Your task to perform on an android device: change the clock display to show seconds Image 0: 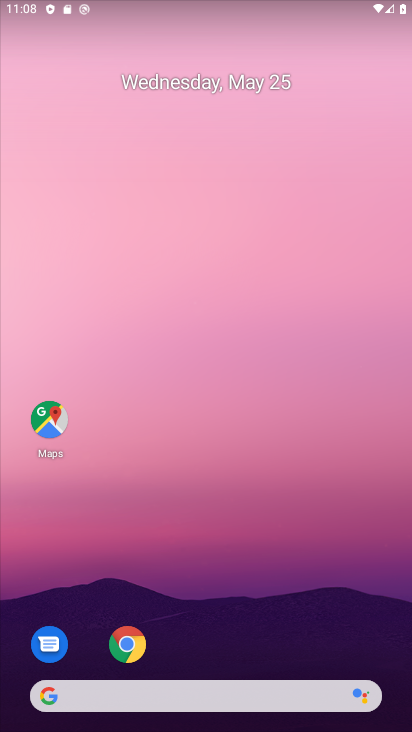
Step 0: drag from (248, 581) to (250, 133)
Your task to perform on an android device: change the clock display to show seconds Image 1: 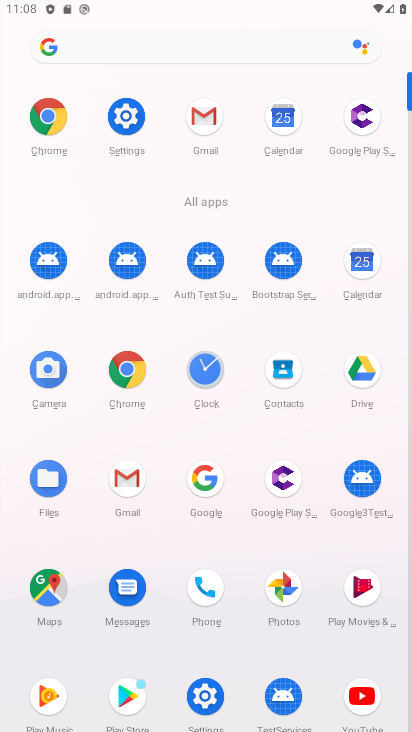
Step 1: click (206, 370)
Your task to perform on an android device: change the clock display to show seconds Image 2: 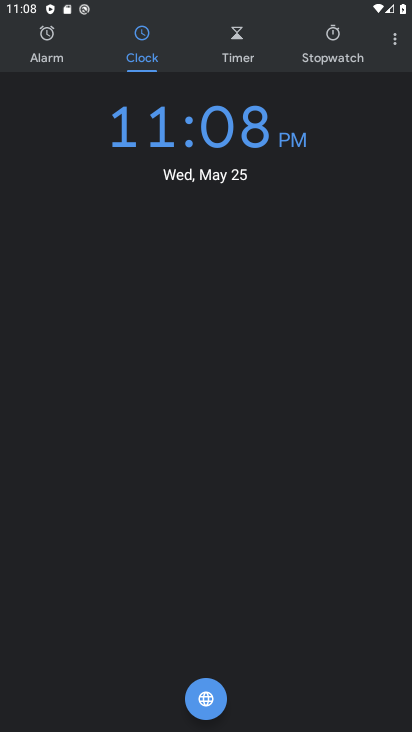
Step 2: click (397, 42)
Your task to perform on an android device: change the clock display to show seconds Image 3: 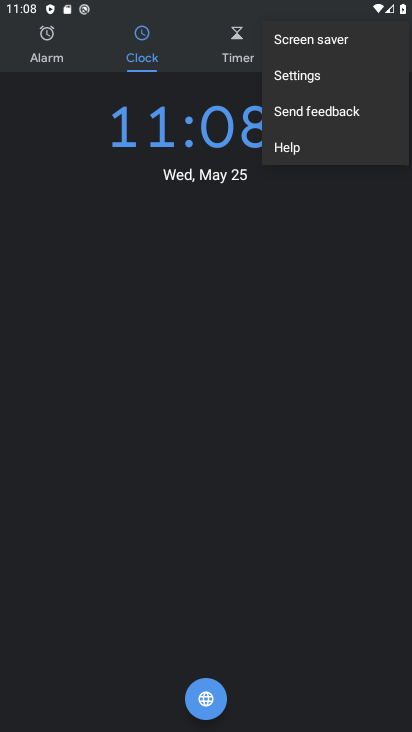
Step 3: click (307, 77)
Your task to perform on an android device: change the clock display to show seconds Image 4: 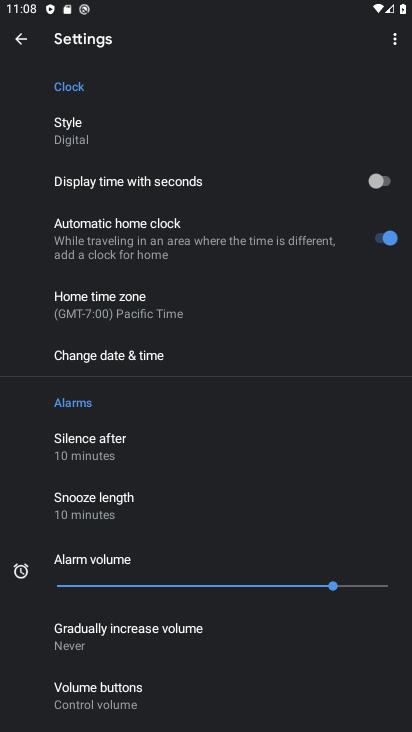
Step 4: click (381, 180)
Your task to perform on an android device: change the clock display to show seconds Image 5: 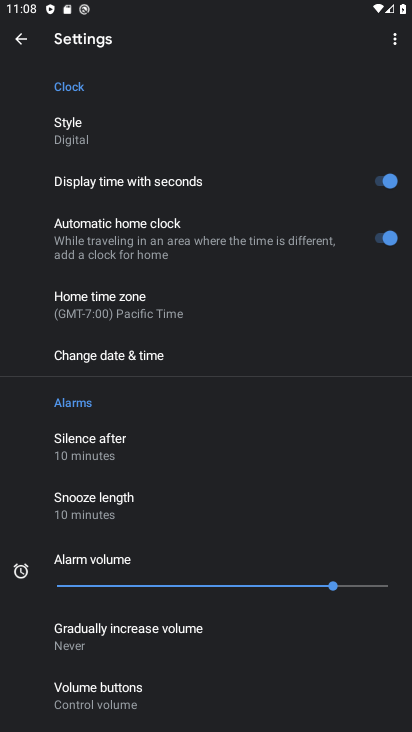
Step 5: task complete